Your task to perform on an android device: Open display settings Image 0: 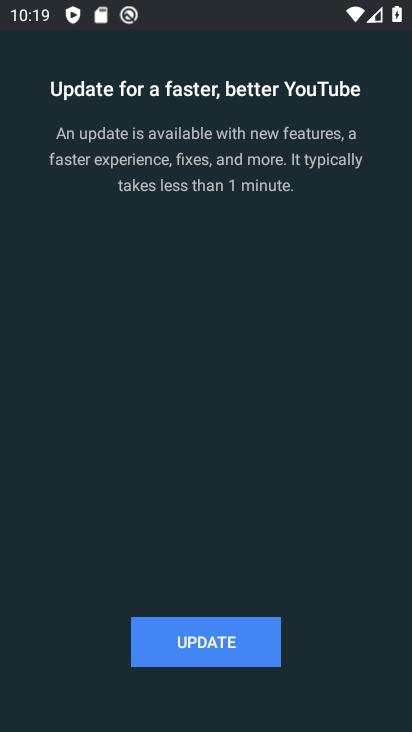
Step 0: click (225, 636)
Your task to perform on an android device: Open display settings Image 1: 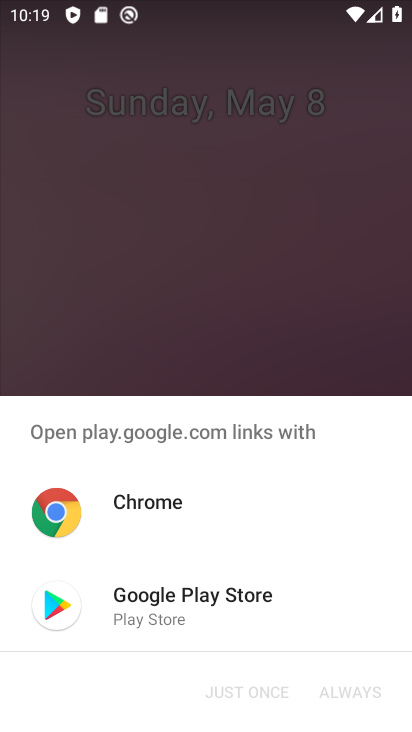
Step 1: click (147, 600)
Your task to perform on an android device: Open display settings Image 2: 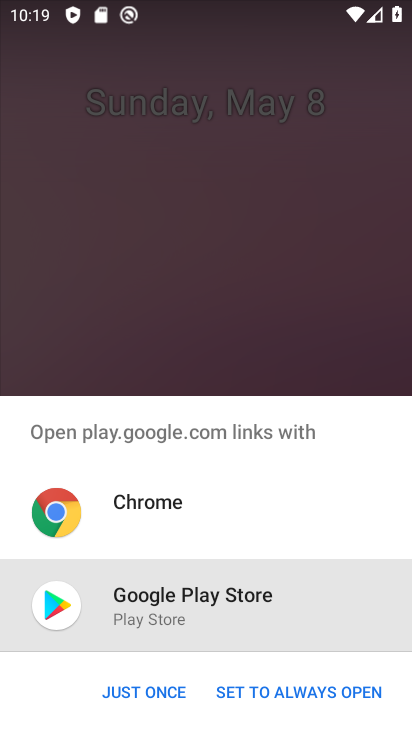
Step 2: click (150, 613)
Your task to perform on an android device: Open display settings Image 3: 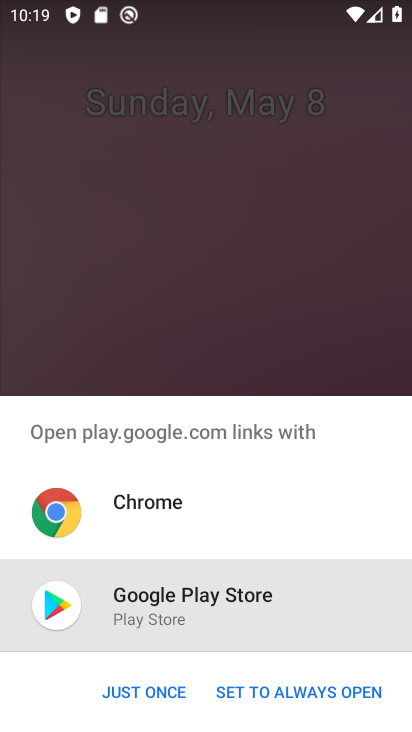
Step 3: click (150, 613)
Your task to perform on an android device: Open display settings Image 4: 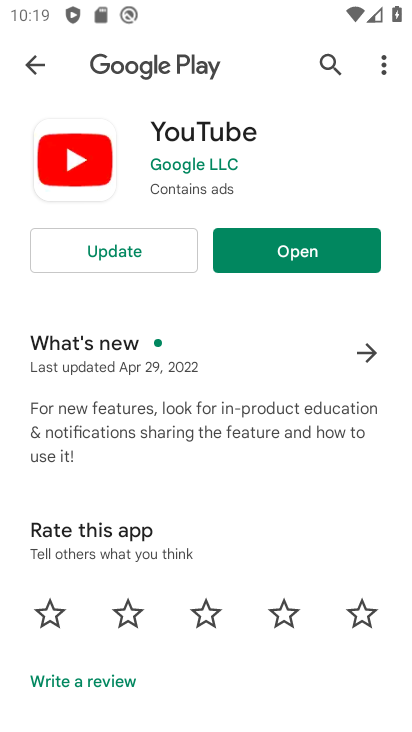
Step 4: click (314, 250)
Your task to perform on an android device: Open display settings Image 5: 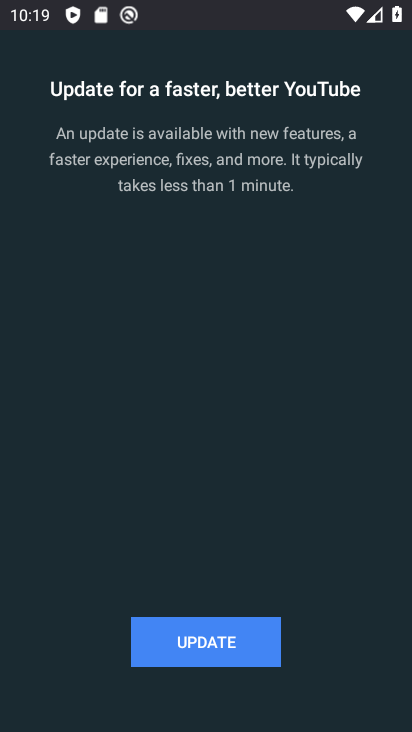
Step 5: click (222, 641)
Your task to perform on an android device: Open display settings Image 6: 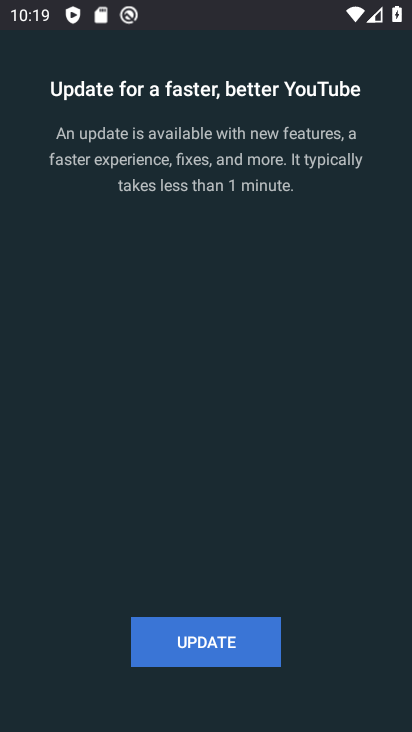
Step 6: click (222, 641)
Your task to perform on an android device: Open display settings Image 7: 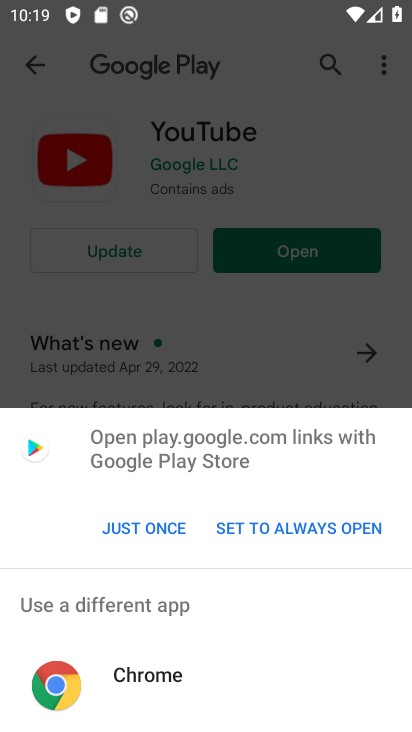
Step 7: click (156, 668)
Your task to perform on an android device: Open display settings Image 8: 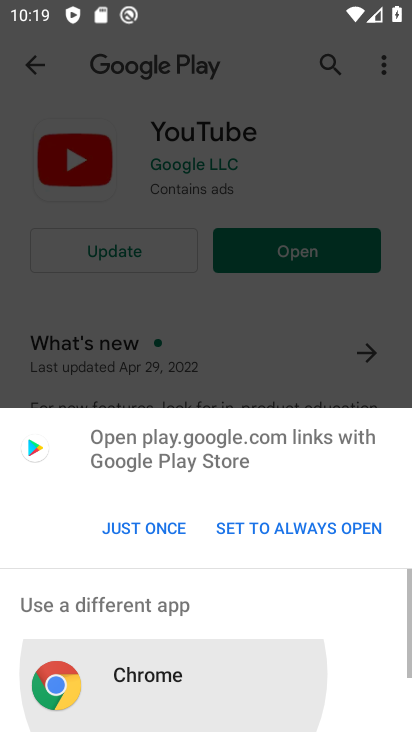
Step 8: click (156, 668)
Your task to perform on an android device: Open display settings Image 9: 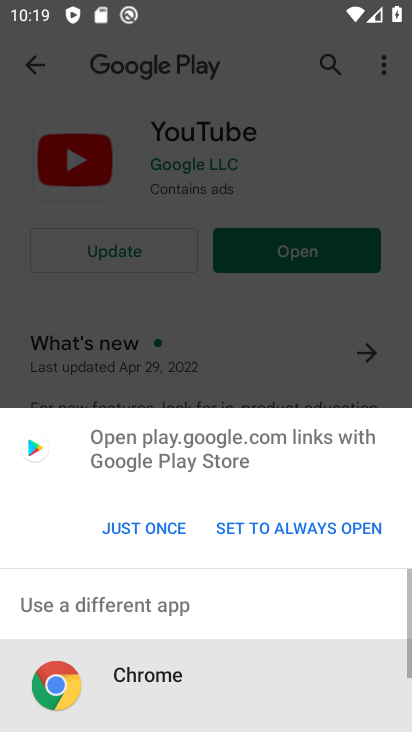
Step 9: click (153, 664)
Your task to perform on an android device: Open display settings Image 10: 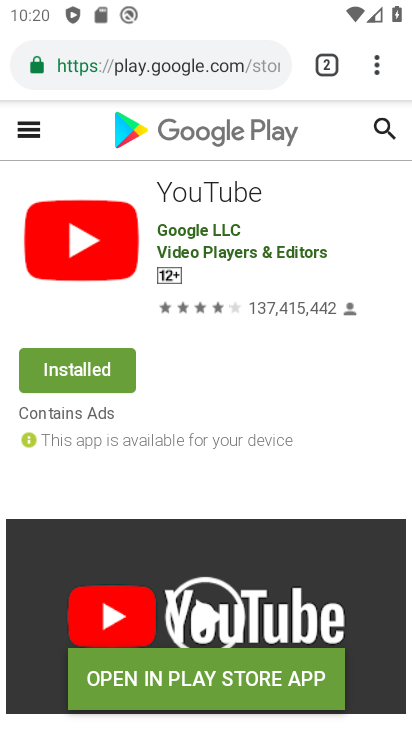
Step 10: press home button
Your task to perform on an android device: Open display settings Image 11: 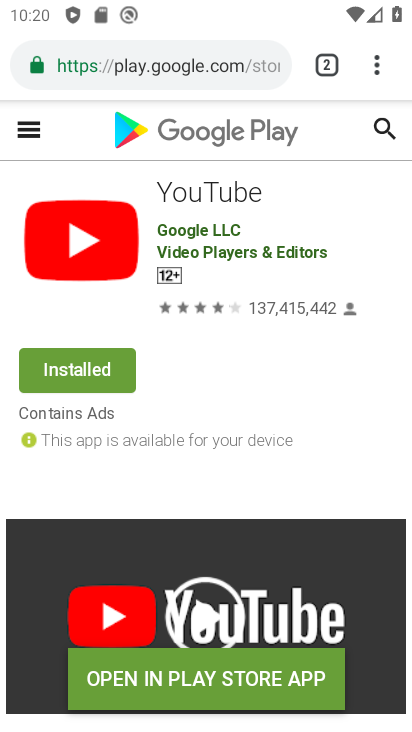
Step 11: press home button
Your task to perform on an android device: Open display settings Image 12: 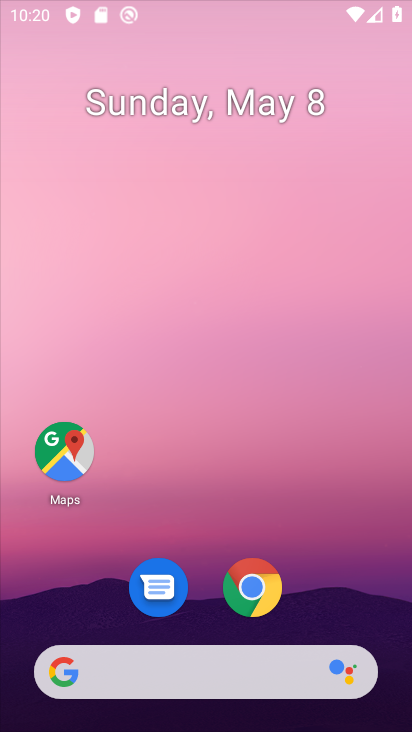
Step 12: press home button
Your task to perform on an android device: Open display settings Image 13: 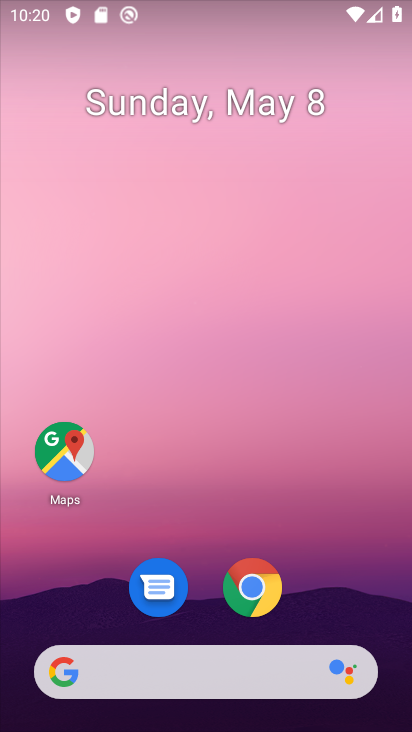
Step 13: drag from (368, 584) to (157, 8)
Your task to perform on an android device: Open display settings Image 14: 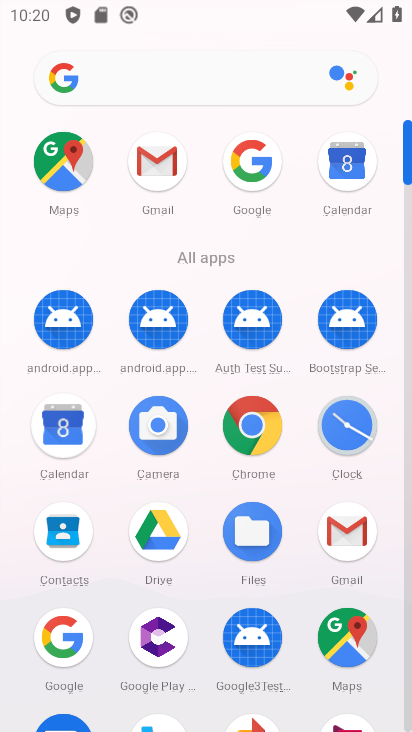
Step 14: drag from (269, 449) to (237, 9)
Your task to perform on an android device: Open display settings Image 15: 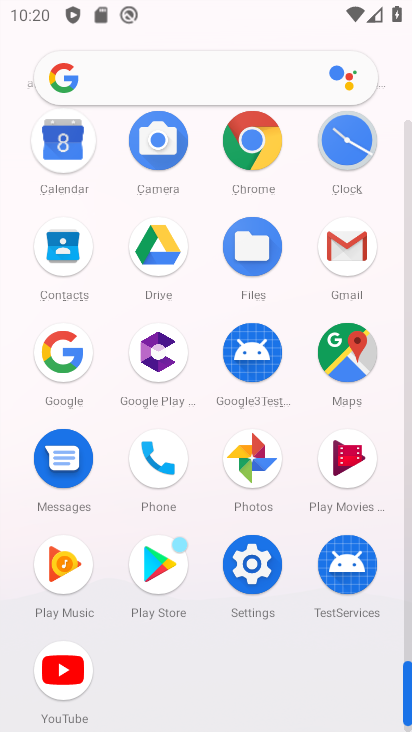
Step 15: click (263, 576)
Your task to perform on an android device: Open display settings Image 16: 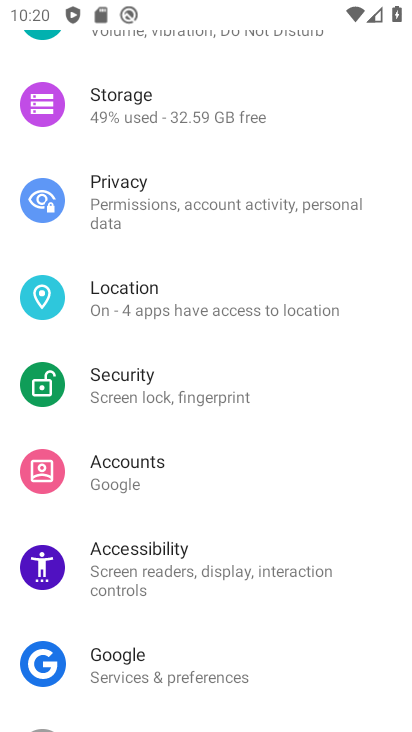
Step 16: click (262, 573)
Your task to perform on an android device: Open display settings Image 17: 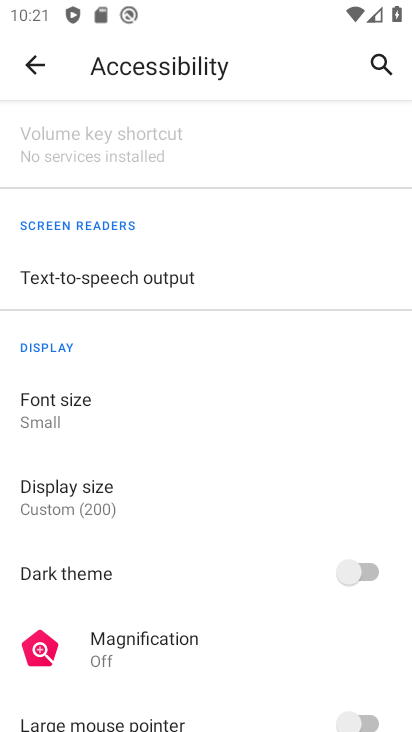
Step 17: click (38, 73)
Your task to perform on an android device: Open display settings Image 18: 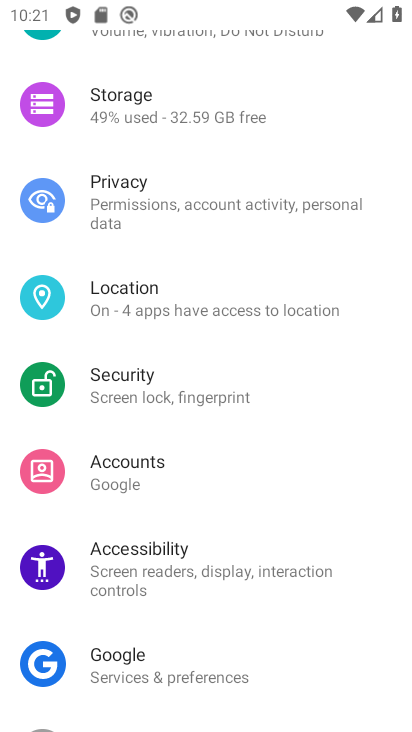
Step 18: drag from (162, 471) to (111, 42)
Your task to perform on an android device: Open display settings Image 19: 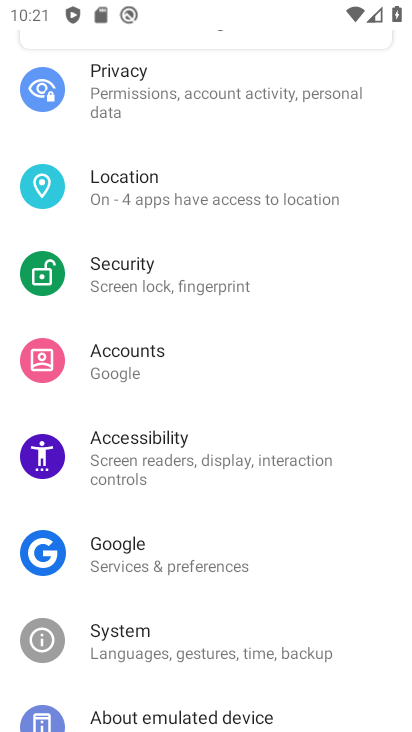
Step 19: drag from (178, 404) to (154, 2)
Your task to perform on an android device: Open display settings Image 20: 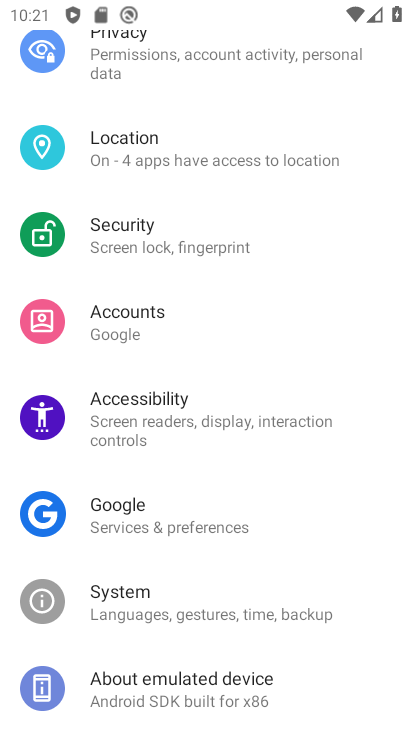
Step 20: drag from (137, 166) to (186, 600)
Your task to perform on an android device: Open display settings Image 21: 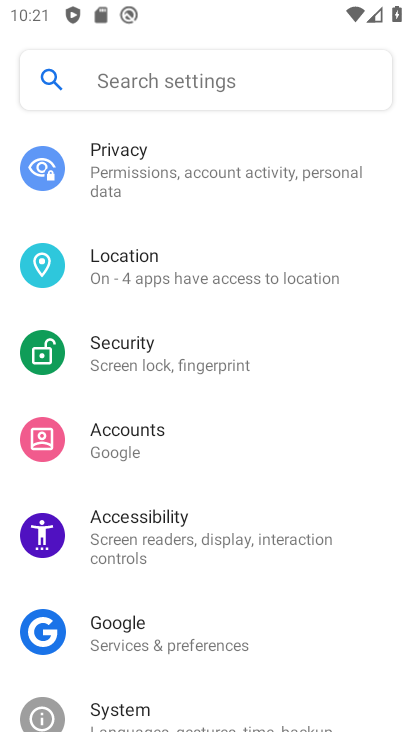
Step 21: drag from (162, 196) to (188, 661)
Your task to perform on an android device: Open display settings Image 22: 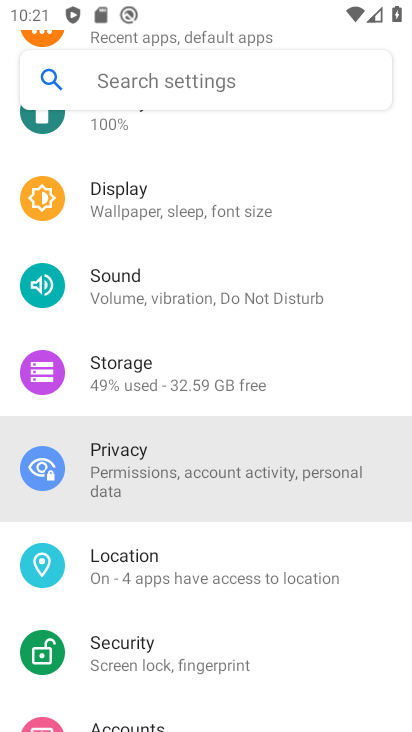
Step 22: drag from (102, 414) to (180, 705)
Your task to perform on an android device: Open display settings Image 23: 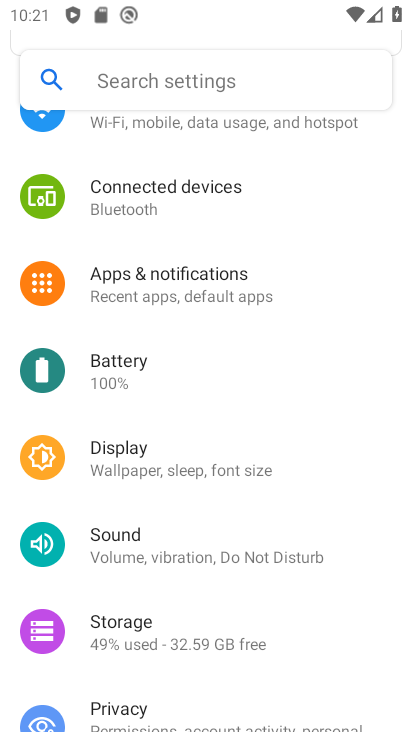
Step 23: drag from (228, 262) to (277, 630)
Your task to perform on an android device: Open display settings Image 24: 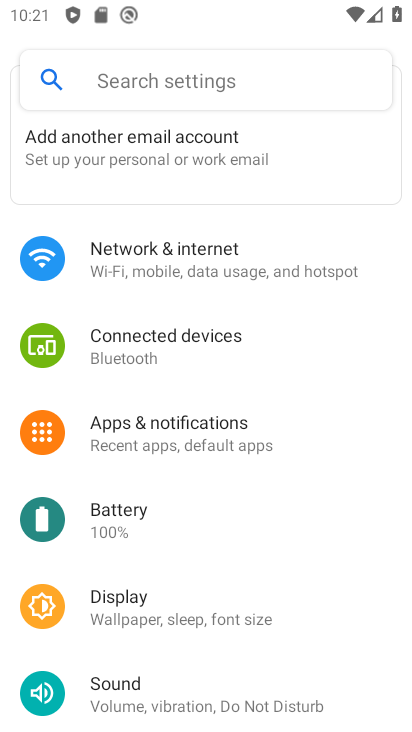
Step 24: click (122, 609)
Your task to perform on an android device: Open display settings Image 25: 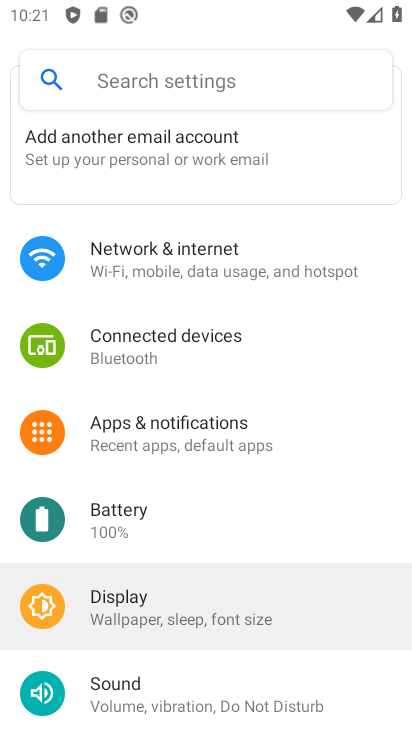
Step 25: click (122, 609)
Your task to perform on an android device: Open display settings Image 26: 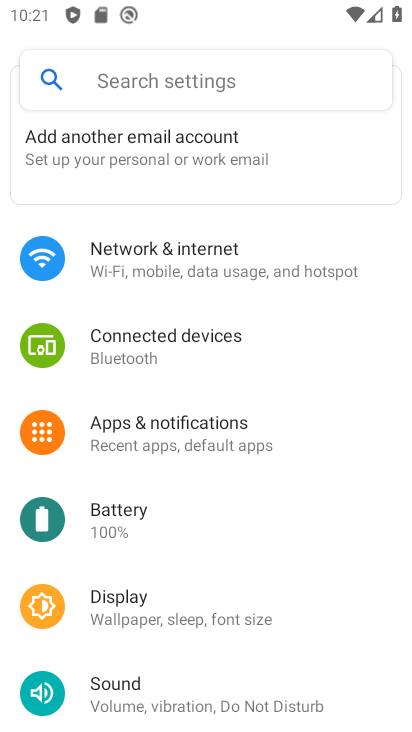
Step 26: click (122, 609)
Your task to perform on an android device: Open display settings Image 27: 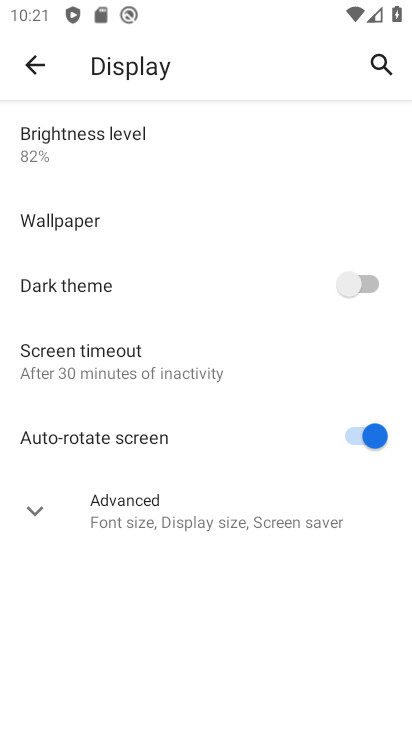
Step 27: task complete